Your task to perform on an android device: turn on notifications settings in the gmail app Image 0: 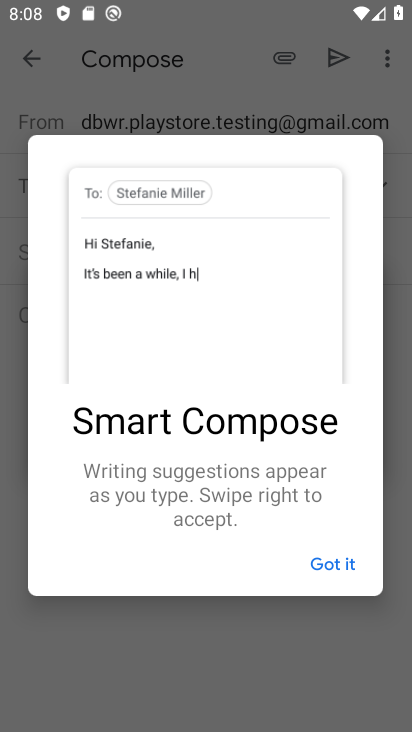
Step 0: press home button
Your task to perform on an android device: turn on notifications settings in the gmail app Image 1: 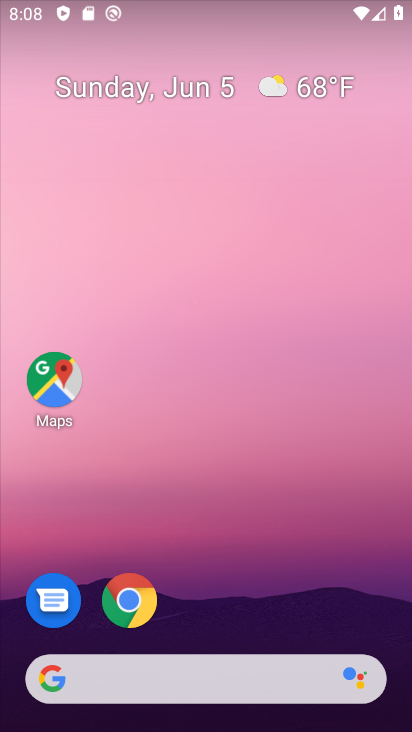
Step 1: drag from (255, 547) to (235, 0)
Your task to perform on an android device: turn on notifications settings in the gmail app Image 2: 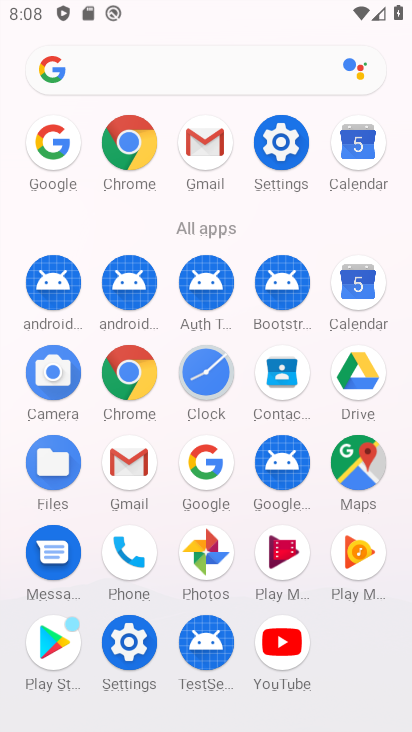
Step 2: click (208, 142)
Your task to perform on an android device: turn on notifications settings in the gmail app Image 3: 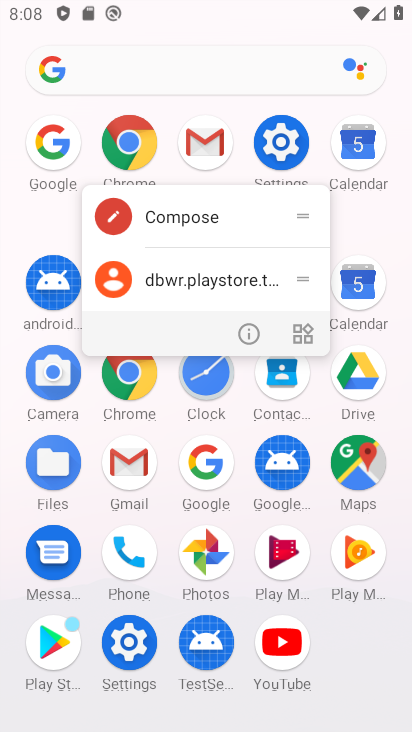
Step 3: click (208, 142)
Your task to perform on an android device: turn on notifications settings in the gmail app Image 4: 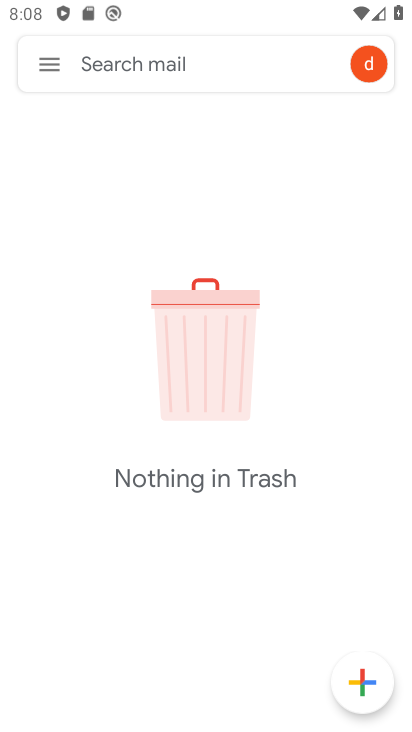
Step 4: click (58, 67)
Your task to perform on an android device: turn on notifications settings in the gmail app Image 5: 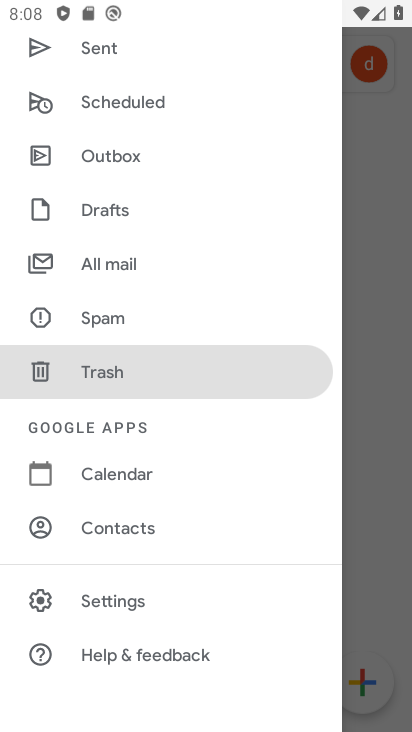
Step 5: click (132, 588)
Your task to perform on an android device: turn on notifications settings in the gmail app Image 6: 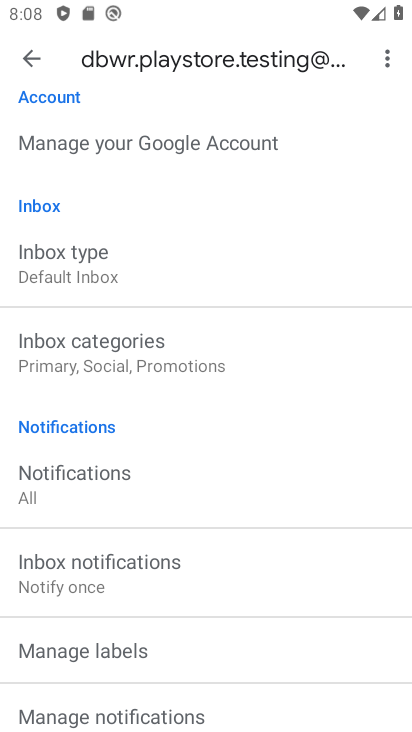
Step 6: click (111, 724)
Your task to perform on an android device: turn on notifications settings in the gmail app Image 7: 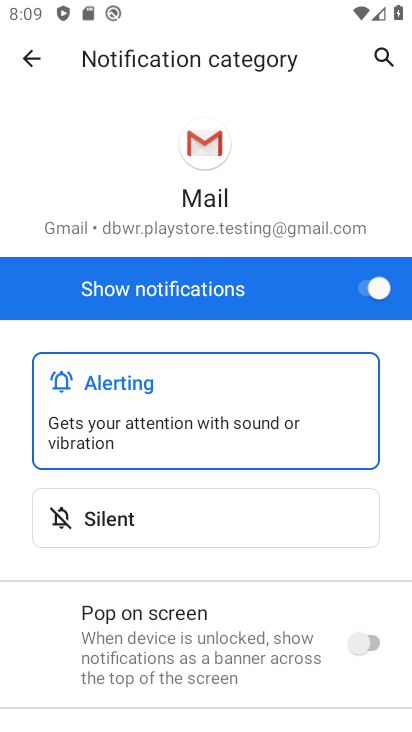
Step 7: task complete